Your task to perform on an android device: Open Chrome and go to settings Image 0: 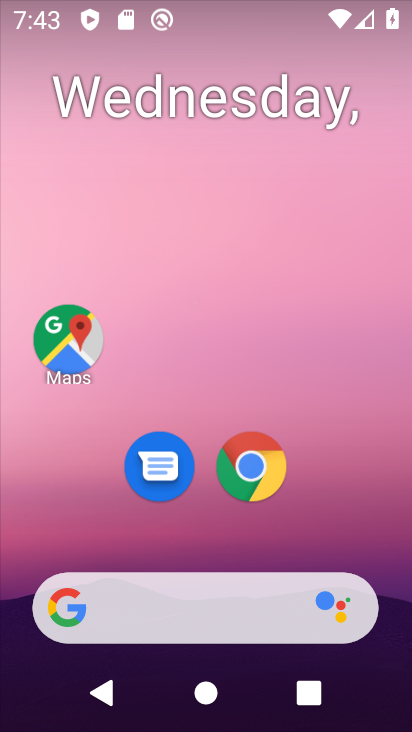
Step 0: drag from (165, 477) to (130, 76)
Your task to perform on an android device: Open Chrome and go to settings Image 1: 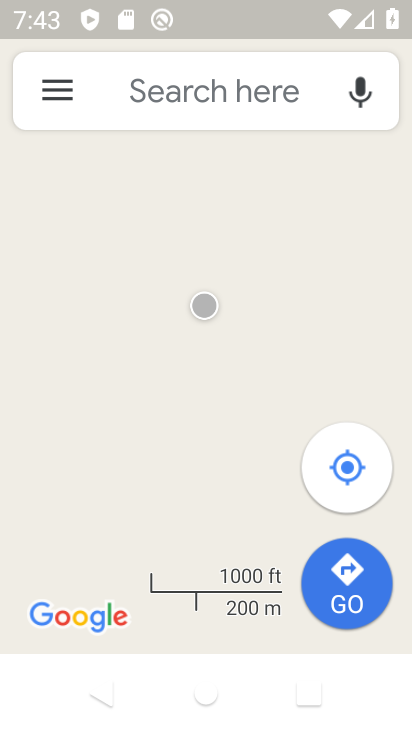
Step 1: press home button
Your task to perform on an android device: Open Chrome and go to settings Image 2: 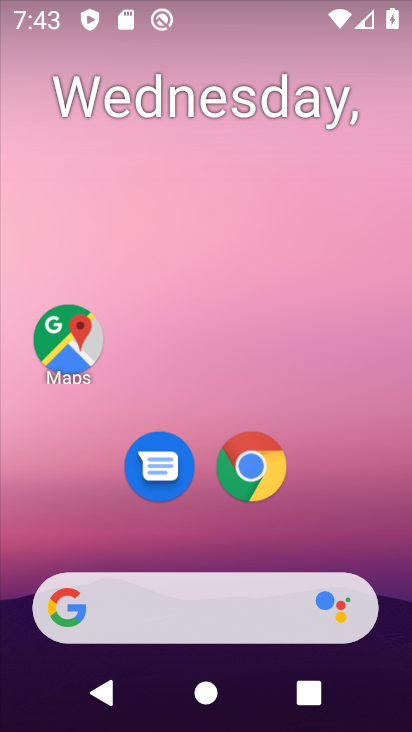
Step 2: click (232, 468)
Your task to perform on an android device: Open Chrome and go to settings Image 3: 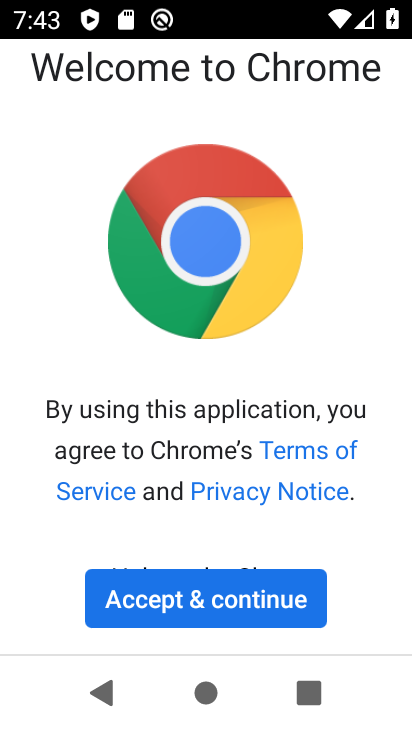
Step 3: click (244, 566)
Your task to perform on an android device: Open Chrome and go to settings Image 4: 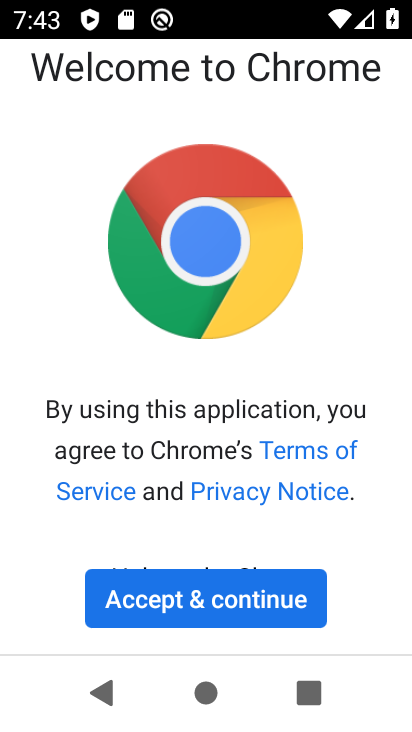
Step 4: click (241, 606)
Your task to perform on an android device: Open Chrome and go to settings Image 5: 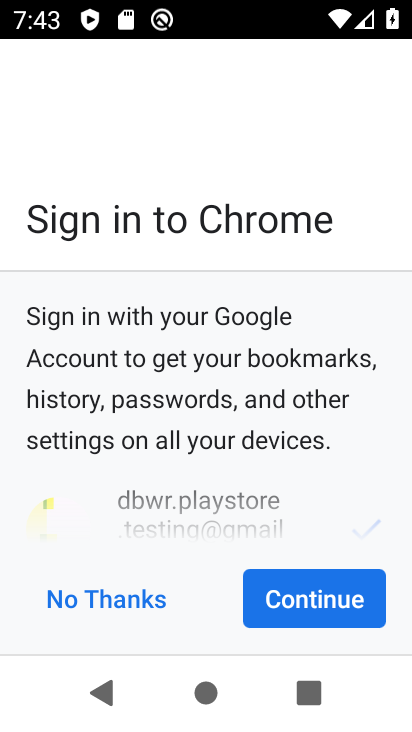
Step 5: click (250, 602)
Your task to perform on an android device: Open Chrome and go to settings Image 6: 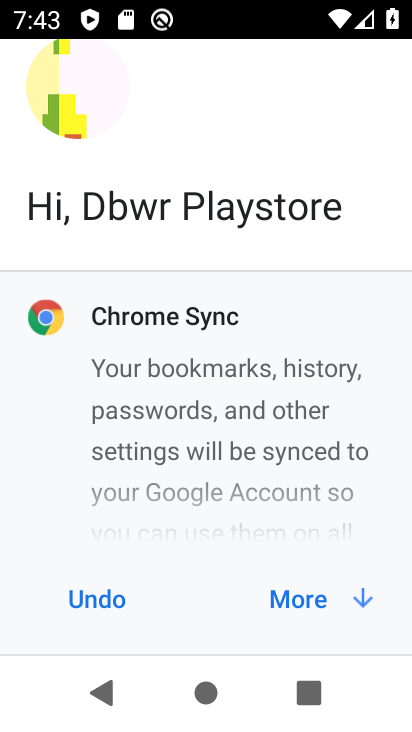
Step 6: click (319, 612)
Your task to perform on an android device: Open Chrome and go to settings Image 7: 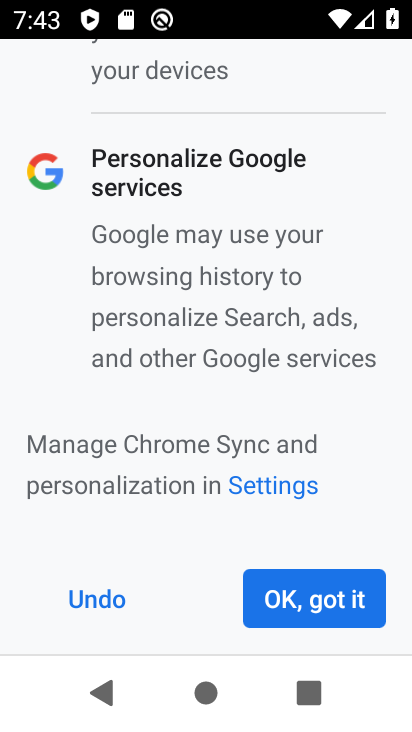
Step 7: click (317, 610)
Your task to perform on an android device: Open Chrome and go to settings Image 8: 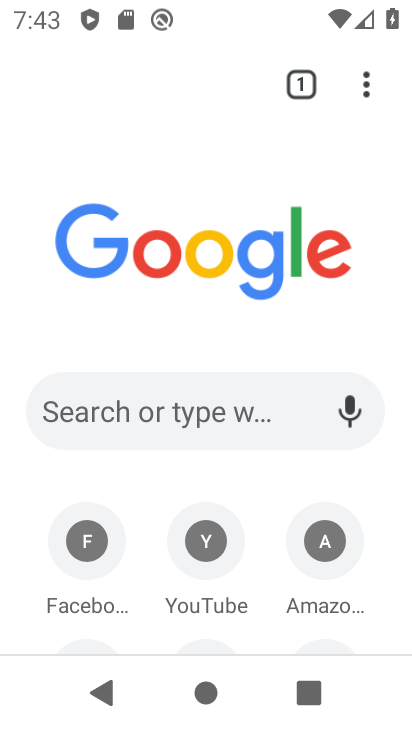
Step 8: task complete